Your task to perform on an android device: set the timer Image 0: 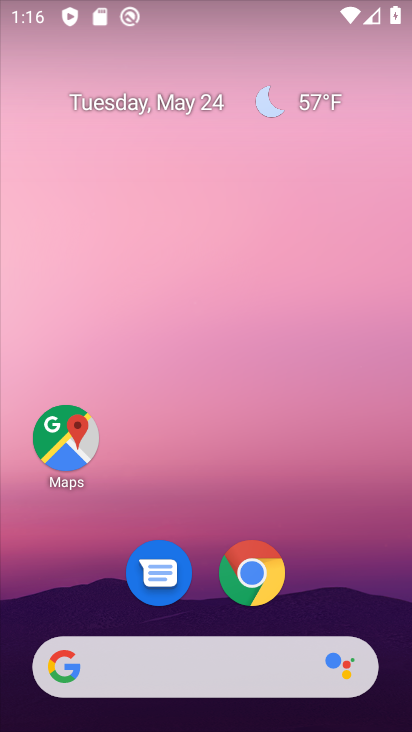
Step 0: drag from (366, 572) to (410, 7)
Your task to perform on an android device: set the timer Image 1: 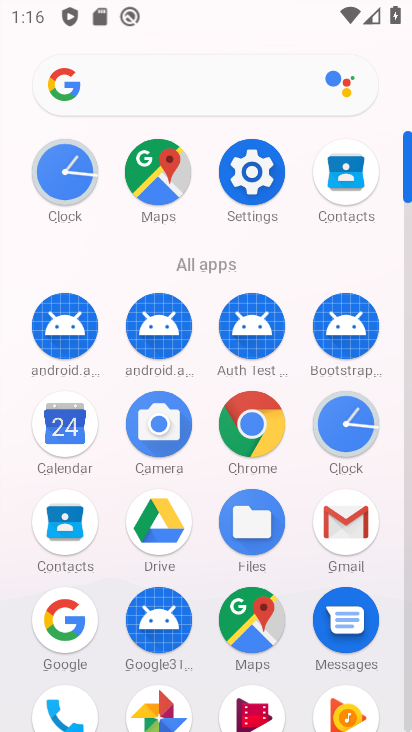
Step 1: click (352, 435)
Your task to perform on an android device: set the timer Image 2: 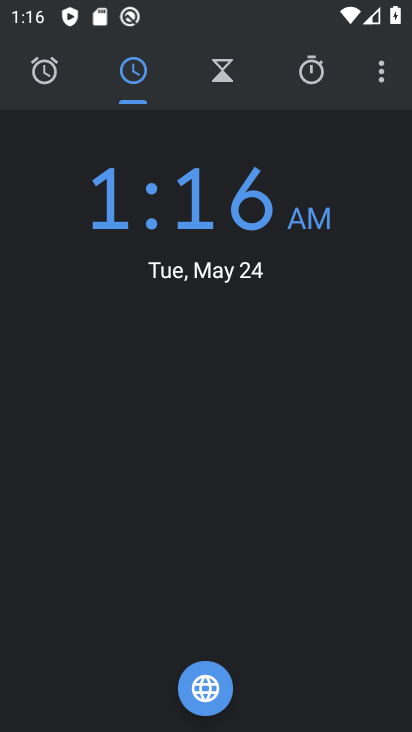
Step 2: click (236, 85)
Your task to perform on an android device: set the timer Image 3: 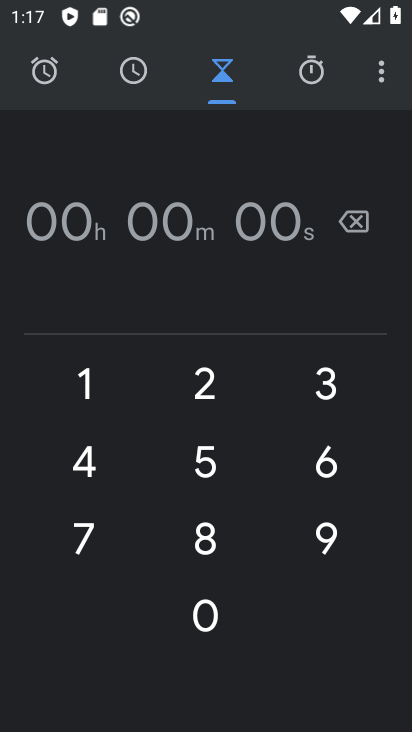
Step 3: click (214, 448)
Your task to perform on an android device: set the timer Image 4: 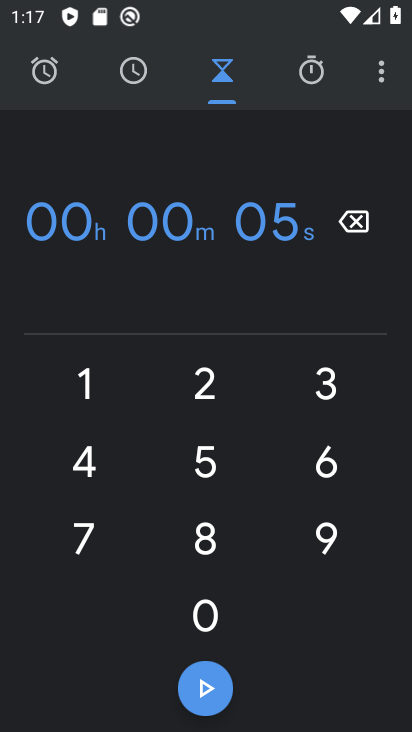
Step 4: click (228, 543)
Your task to perform on an android device: set the timer Image 5: 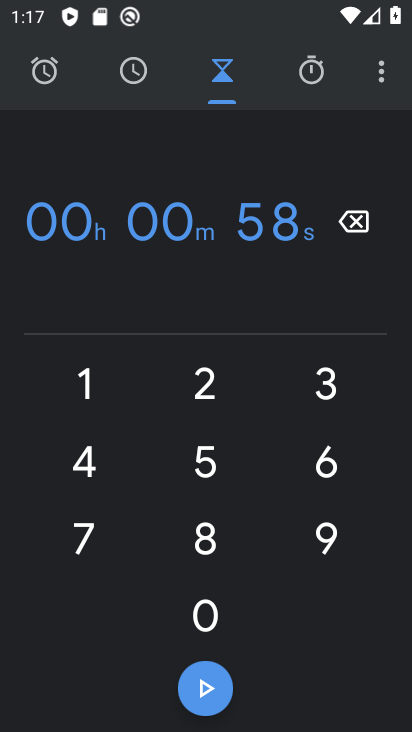
Step 5: click (219, 384)
Your task to perform on an android device: set the timer Image 6: 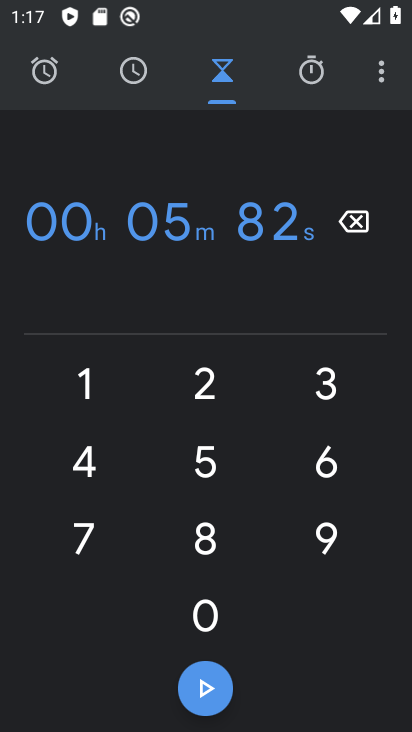
Step 6: task complete